Your task to perform on an android device: Open ESPN.com Image 0: 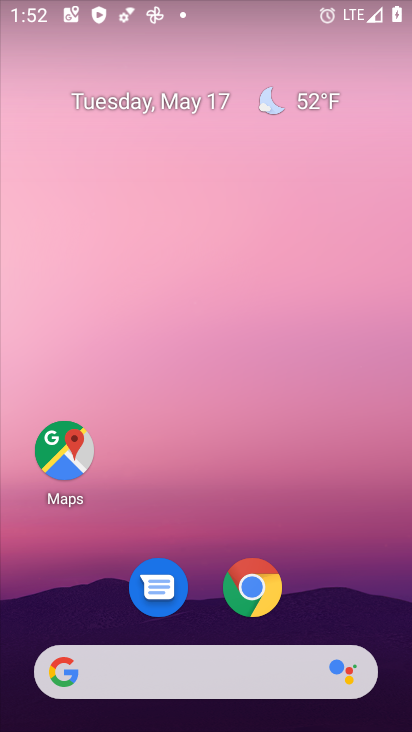
Step 0: click (252, 610)
Your task to perform on an android device: Open ESPN.com Image 1: 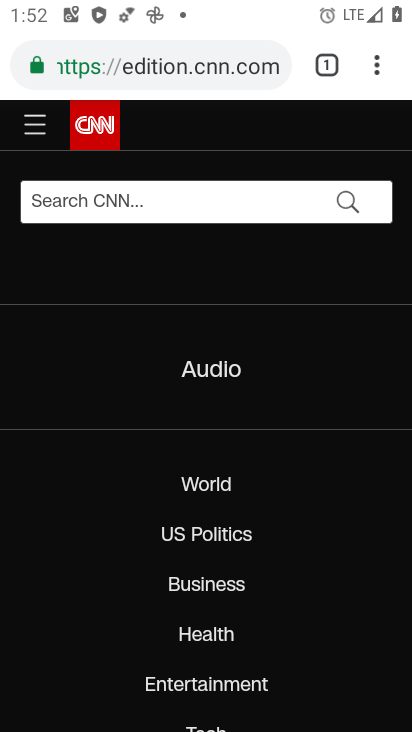
Step 1: task complete